Your task to perform on an android device: show emergency info Image 0: 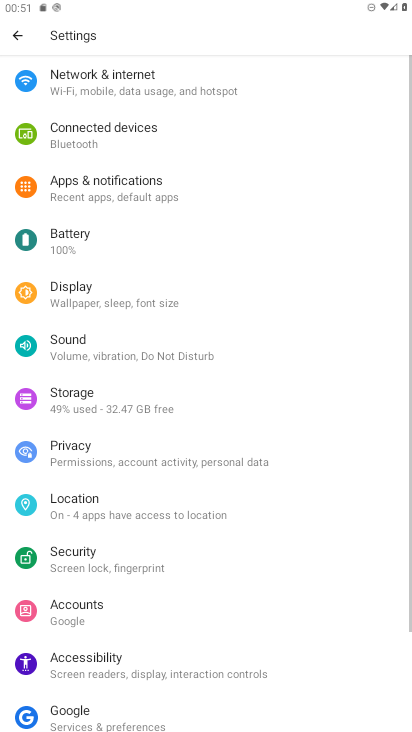
Step 0: press home button
Your task to perform on an android device: show emergency info Image 1: 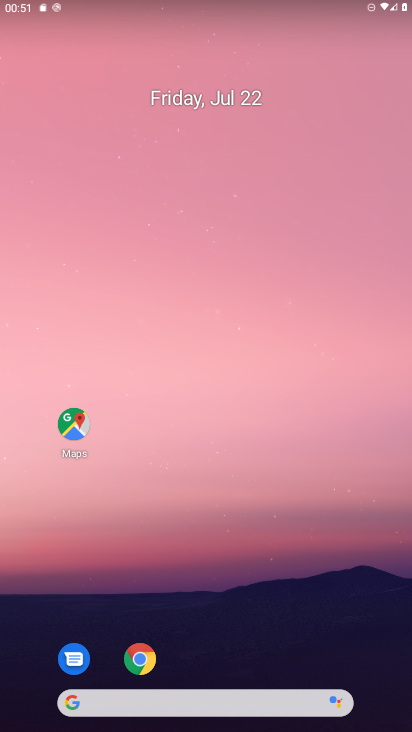
Step 1: drag from (174, 700) to (220, 137)
Your task to perform on an android device: show emergency info Image 2: 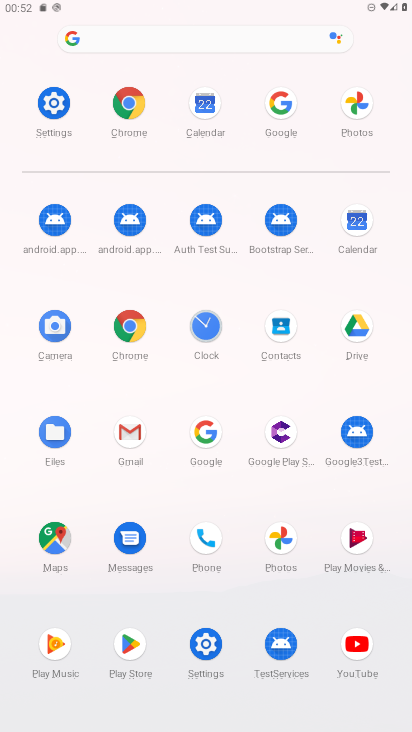
Step 2: click (207, 641)
Your task to perform on an android device: show emergency info Image 3: 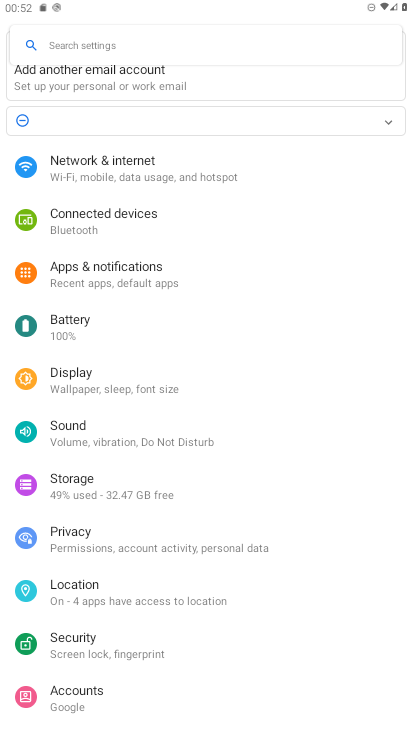
Step 3: drag from (126, 527) to (144, 436)
Your task to perform on an android device: show emergency info Image 4: 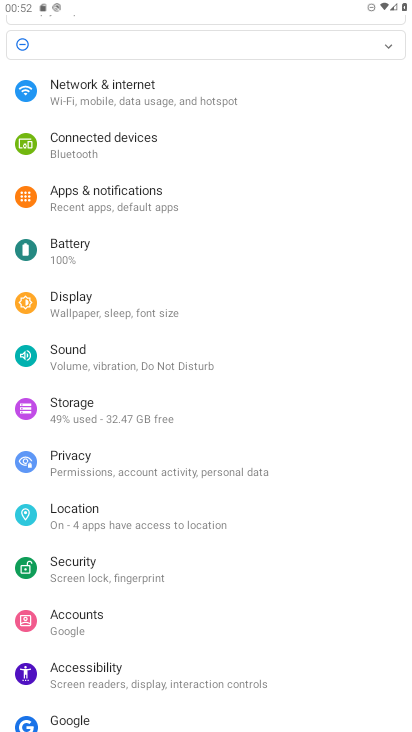
Step 4: drag from (115, 566) to (161, 470)
Your task to perform on an android device: show emergency info Image 5: 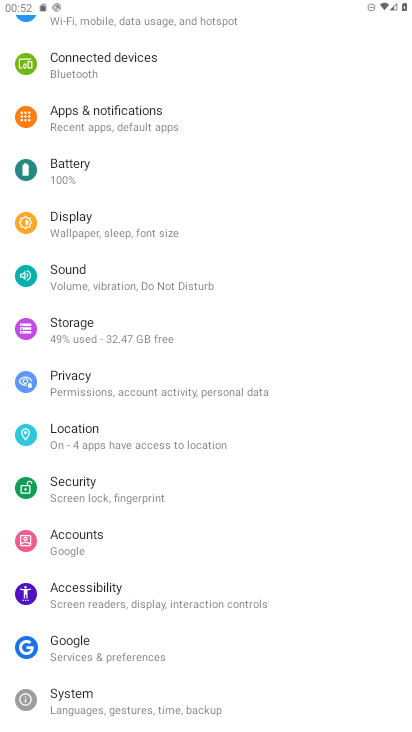
Step 5: drag from (149, 578) to (185, 483)
Your task to perform on an android device: show emergency info Image 6: 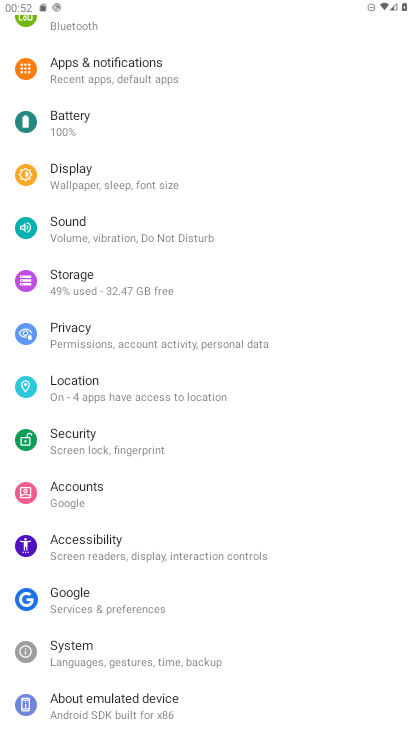
Step 6: click (110, 697)
Your task to perform on an android device: show emergency info Image 7: 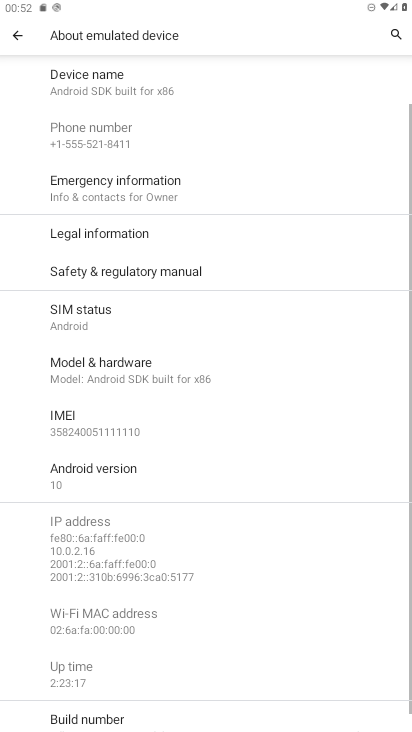
Step 7: click (126, 194)
Your task to perform on an android device: show emergency info Image 8: 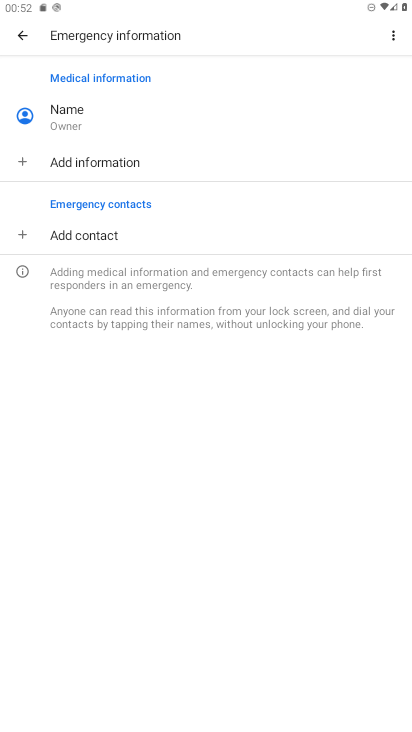
Step 8: task complete